Your task to perform on an android device: Go to Reddit.com Image 0: 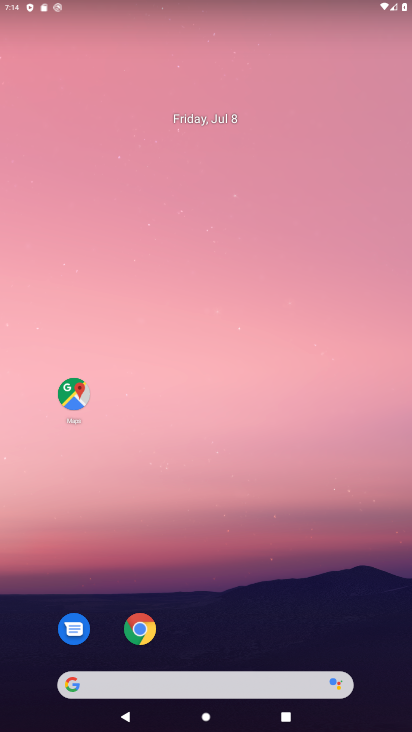
Step 0: click (129, 647)
Your task to perform on an android device: Go to Reddit.com Image 1: 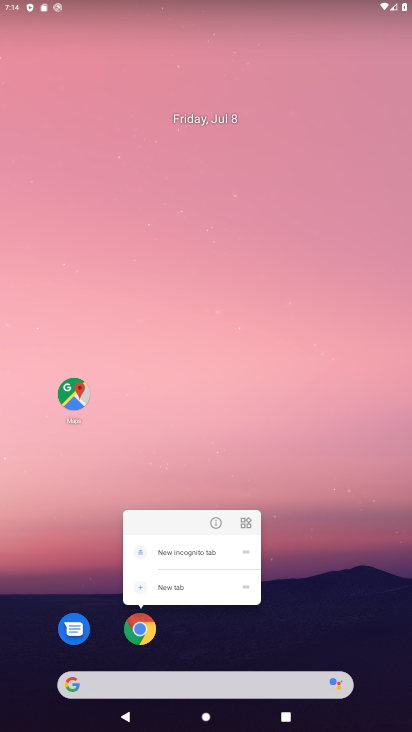
Step 1: click (155, 626)
Your task to perform on an android device: Go to Reddit.com Image 2: 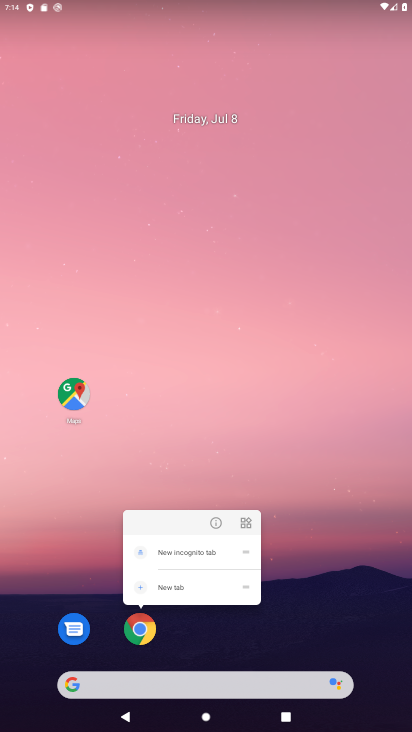
Step 2: click (150, 628)
Your task to perform on an android device: Go to Reddit.com Image 3: 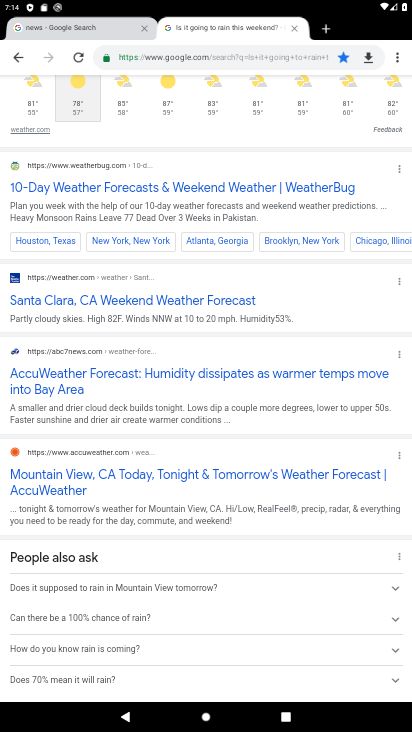
Step 3: click (276, 60)
Your task to perform on an android device: Go to Reddit.com Image 4: 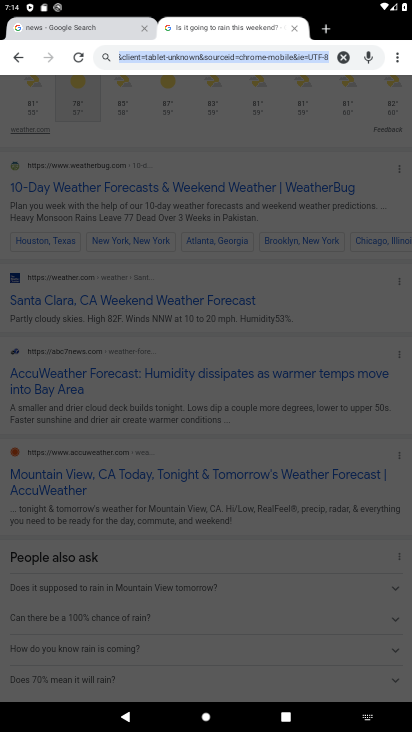
Step 4: type "Reddit.com"
Your task to perform on an android device: Go to Reddit.com Image 5: 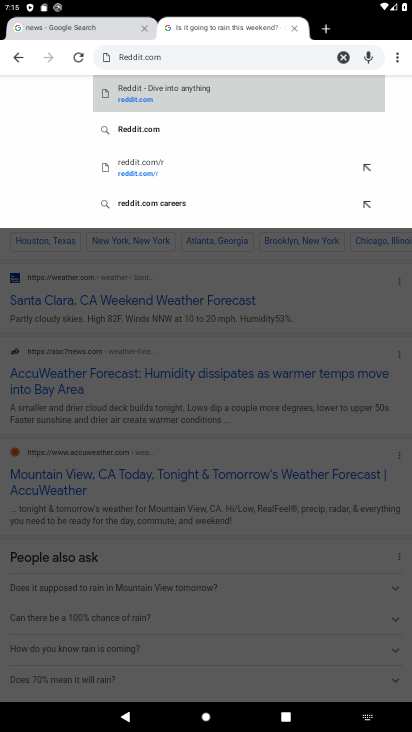
Step 5: click (228, 102)
Your task to perform on an android device: Go to Reddit.com Image 6: 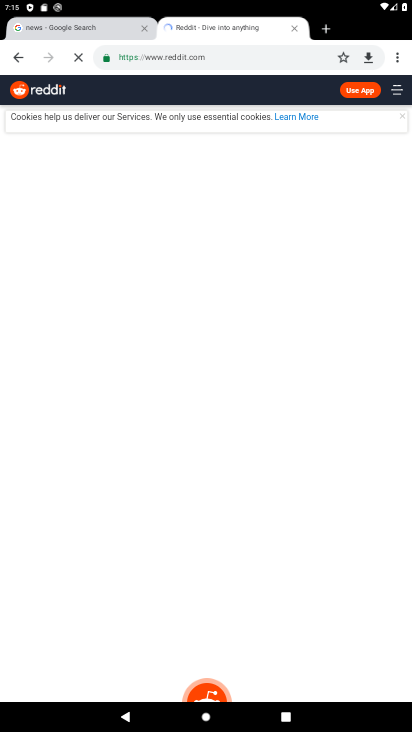
Step 6: task complete